Your task to perform on an android device: Go to network settings Image 0: 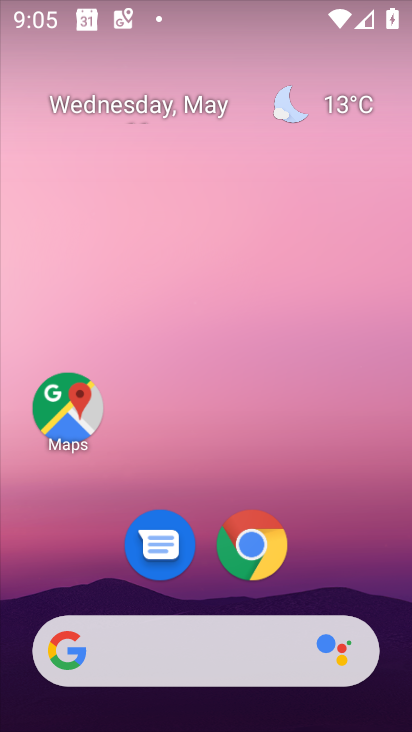
Step 0: drag from (342, 566) to (14, 494)
Your task to perform on an android device: Go to network settings Image 1: 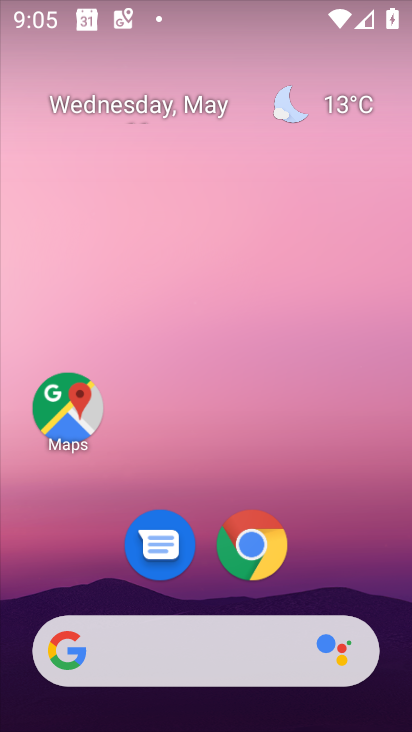
Step 1: drag from (16, 561) to (27, 8)
Your task to perform on an android device: Go to network settings Image 2: 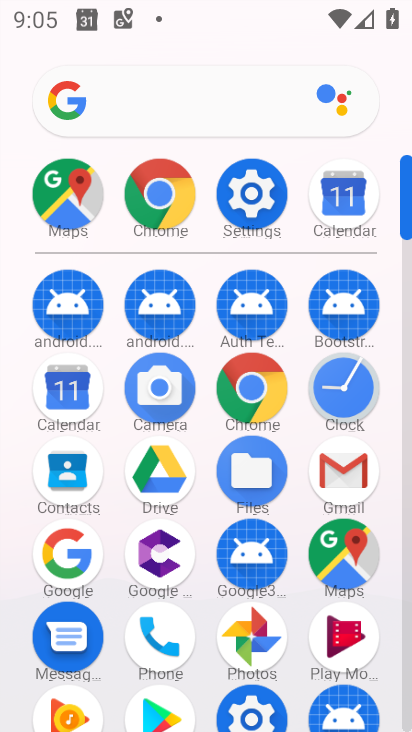
Step 2: drag from (20, 645) to (9, 362)
Your task to perform on an android device: Go to network settings Image 3: 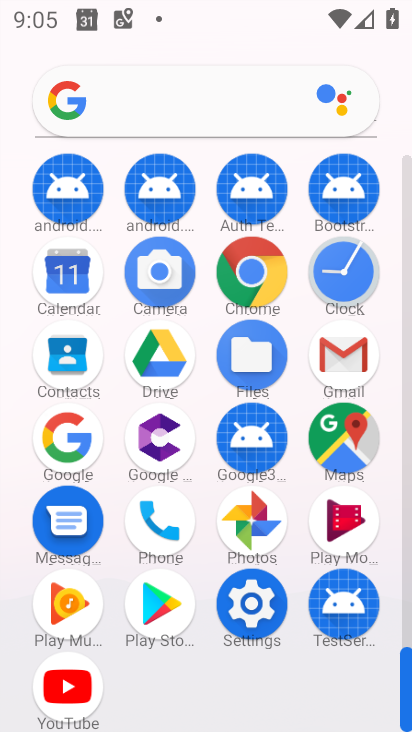
Step 3: click (250, 601)
Your task to perform on an android device: Go to network settings Image 4: 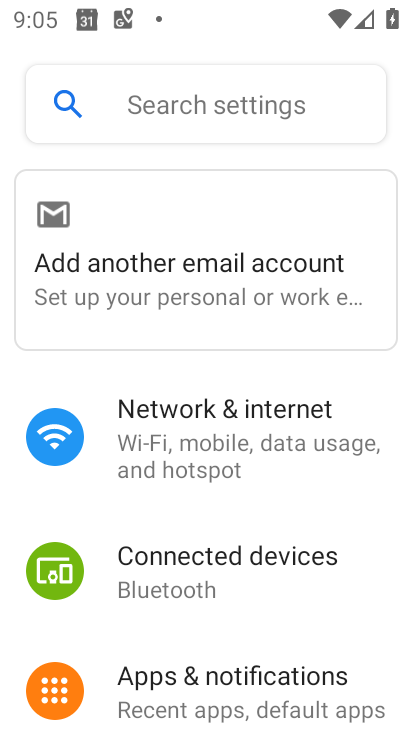
Step 4: click (274, 454)
Your task to perform on an android device: Go to network settings Image 5: 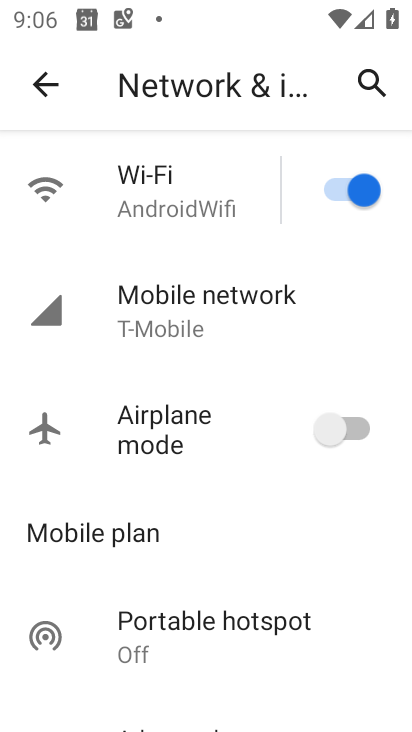
Step 5: task complete